Your task to perform on an android device: change keyboard looks Image 0: 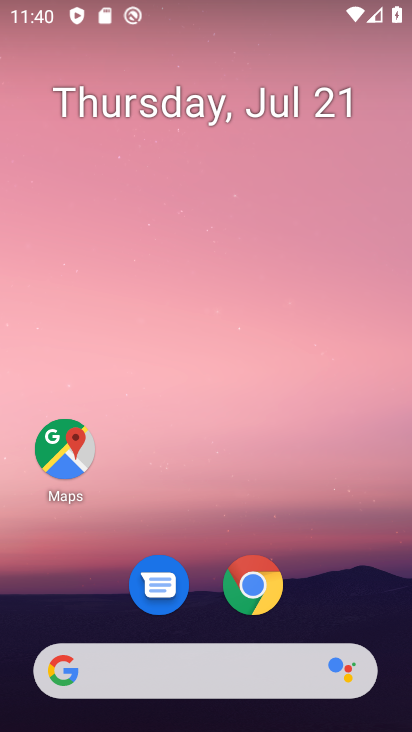
Step 0: press home button
Your task to perform on an android device: change keyboard looks Image 1: 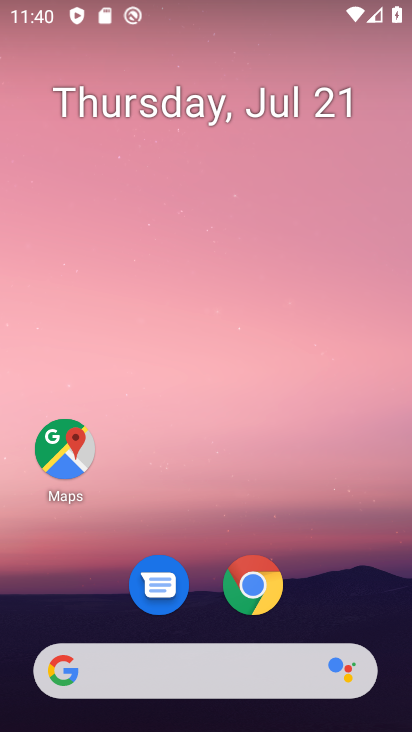
Step 1: drag from (190, 680) to (299, 311)
Your task to perform on an android device: change keyboard looks Image 2: 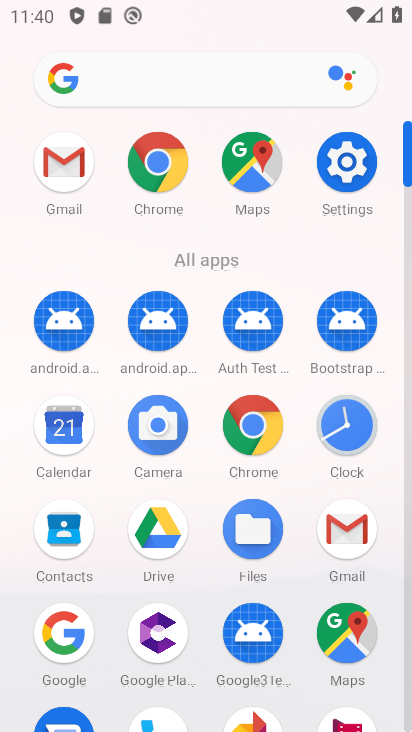
Step 2: click (339, 166)
Your task to perform on an android device: change keyboard looks Image 3: 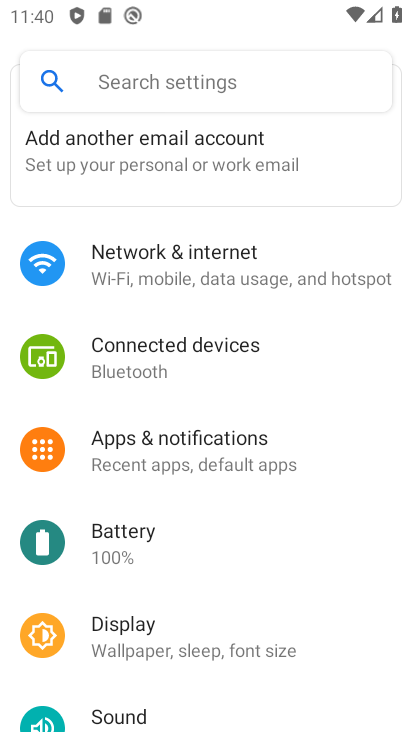
Step 3: drag from (270, 616) to (390, 103)
Your task to perform on an android device: change keyboard looks Image 4: 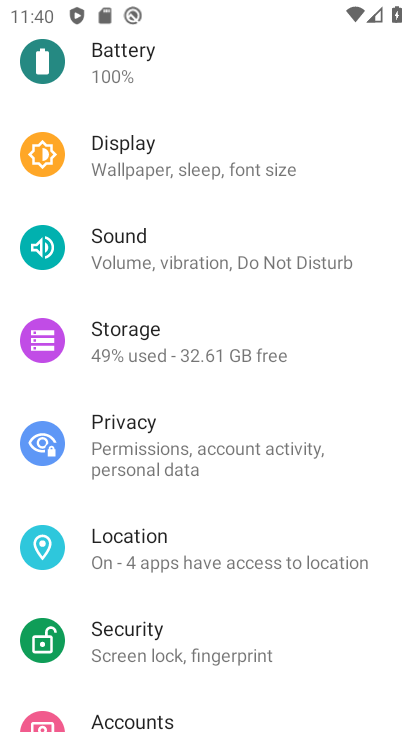
Step 4: drag from (278, 684) to (376, 8)
Your task to perform on an android device: change keyboard looks Image 5: 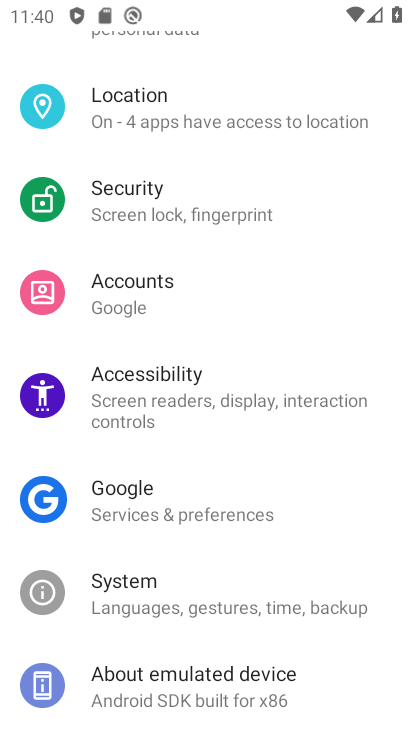
Step 5: click (169, 597)
Your task to perform on an android device: change keyboard looks Image 6: 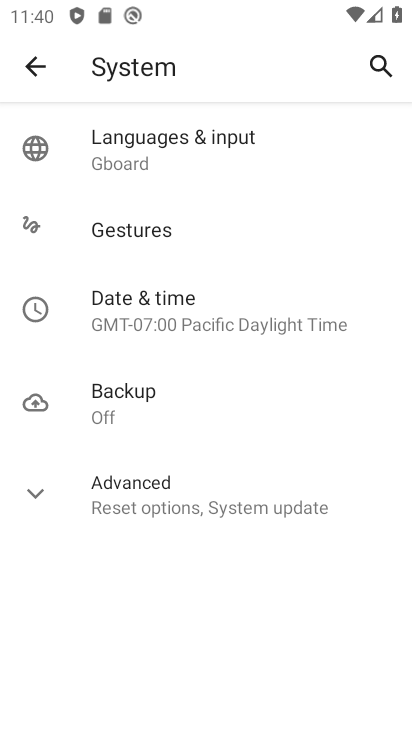
Step 6: click (153, 150)
Your task to perform on an android device: change keyboard looks Image 7: 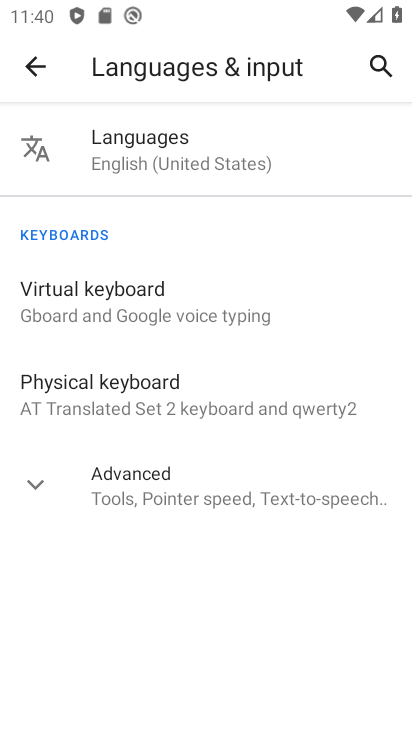
Step 7: click (100, 301)
Your task to perform on an android device: change keyboard looks Image 8: 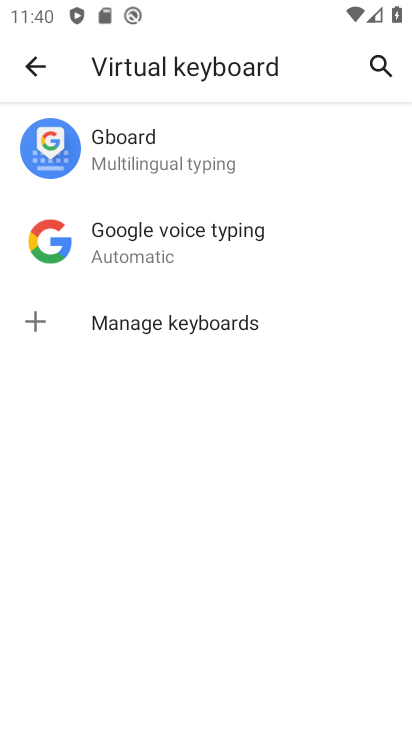
Step 8: click (147, 158)
Your task to perform on an android device: change keyboard looks Image 9: 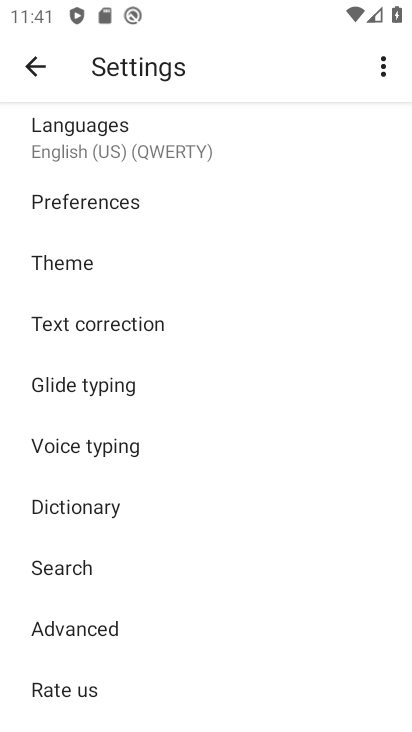
Step 9: click (86, 257)
Your task to perform on an android device: change keyboard looks Image 10: 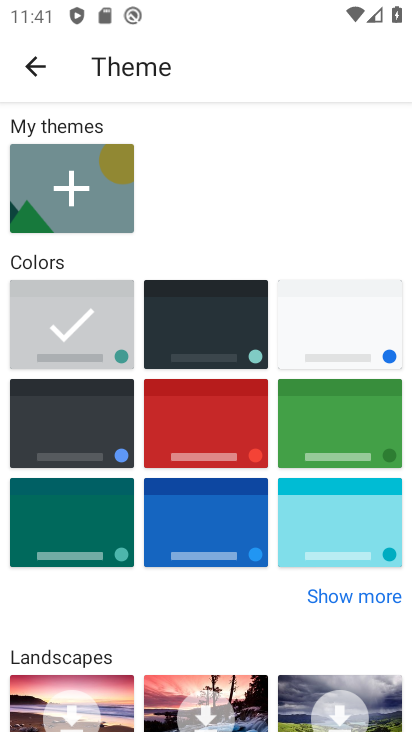
Step 10: click (236, 422)
Your task to perform on an android device: change keyboard looks Image 11: 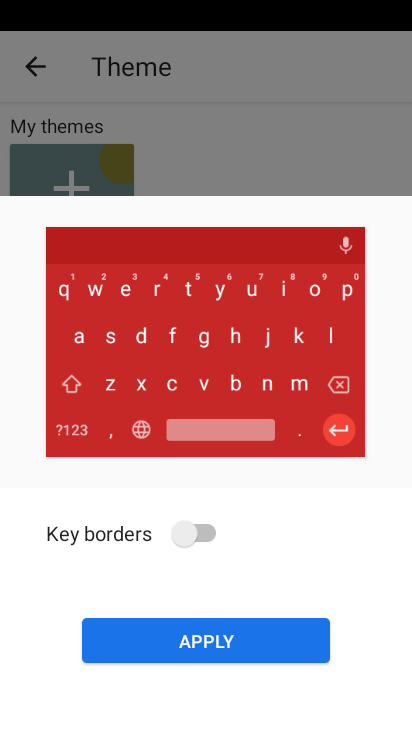
Step 11: click (200, 648)
Your task to perform on an android device: change keyboard looks Image 12: 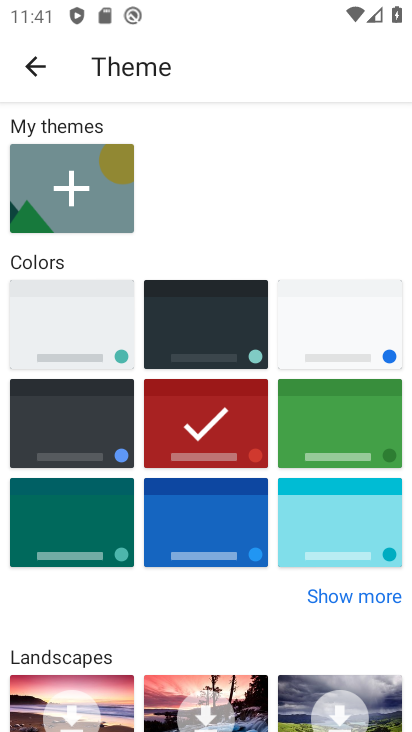
Step 12: task complete